Your task to perform on an android device: Open Youtube and go to the subscriptions tab Image 0: 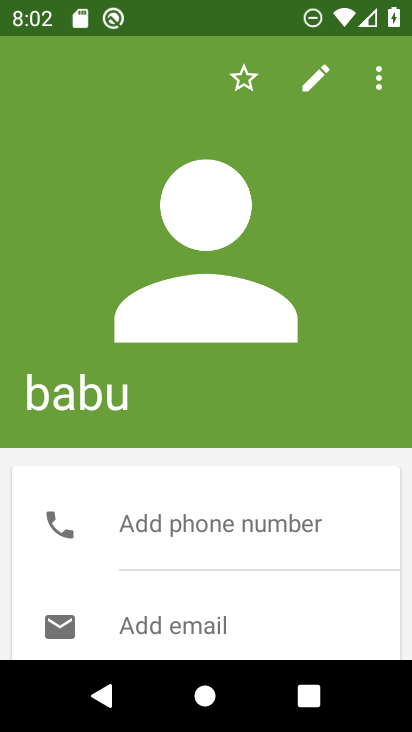
Step 0: press home button
Your task to perform on an android device: Open Youtube and go to the subscriptions tab Image 1: 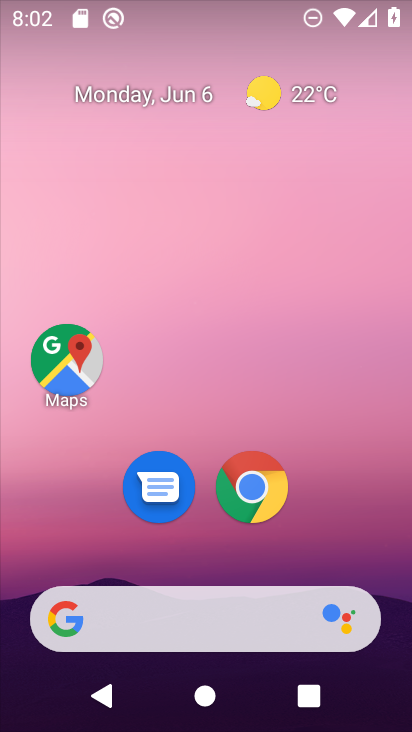
Step 1: drag from (395, 633) to (301, 86)
Your task to perform on an android device: Open Youtube and go to the subscriptions tab Image 2: 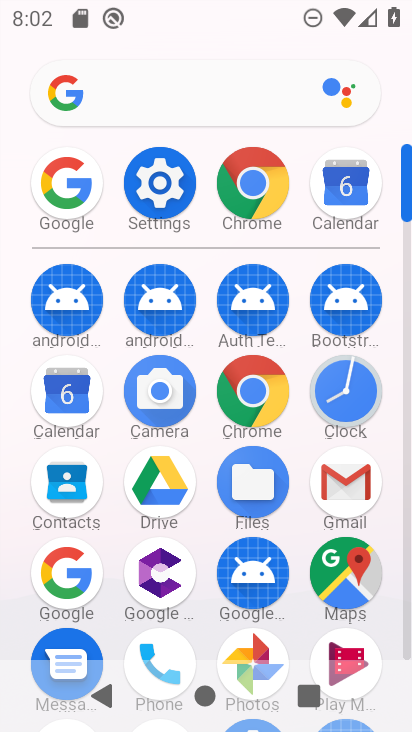
Step 2: drag from (303, 624) to (313, 182)
Your task to perform on an android device: Open Youtube and go to the subscriptions tab Image 3: 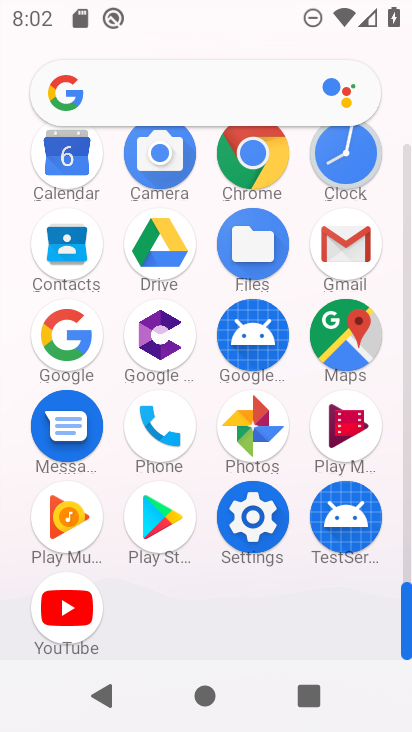
Step 3: click (61, 618)
Your task to perform on an android device: Open Youtube and go to the subscriptions tab Image 4: 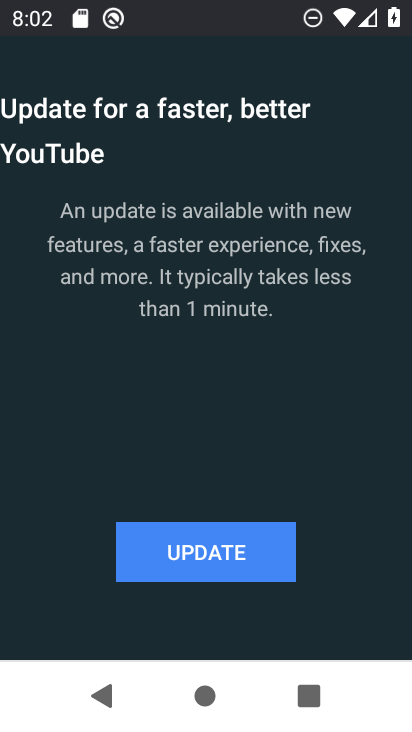
Step 4: click (237, 541)
Your task to perform on an android device: Open Youtube and go to the subscriptions tab Image 5: 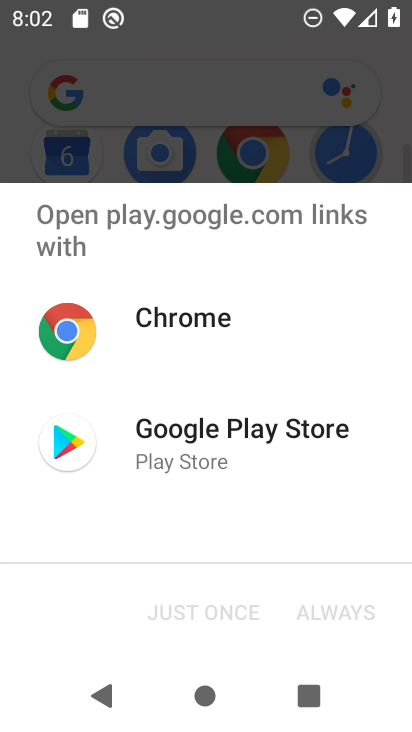
Step 5: click (171, 420)
Your task to perform on an android device: Open Youtube and go to the subscriptions tab Image 6: 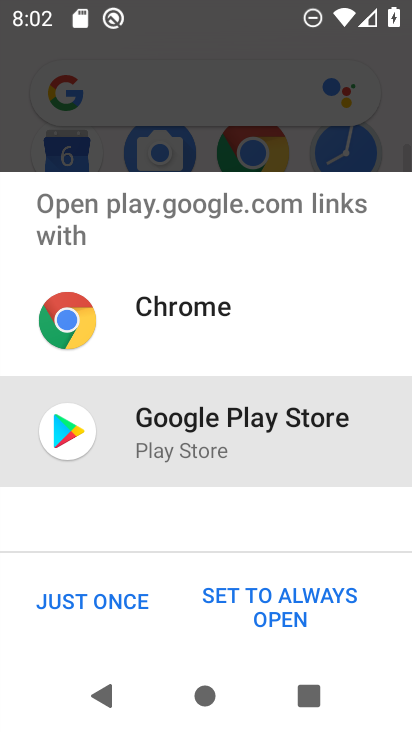
Step 6: click (66, 597)
Your task to perform on an android device: Open Youtube and go to the subscriptions tab Image 7: 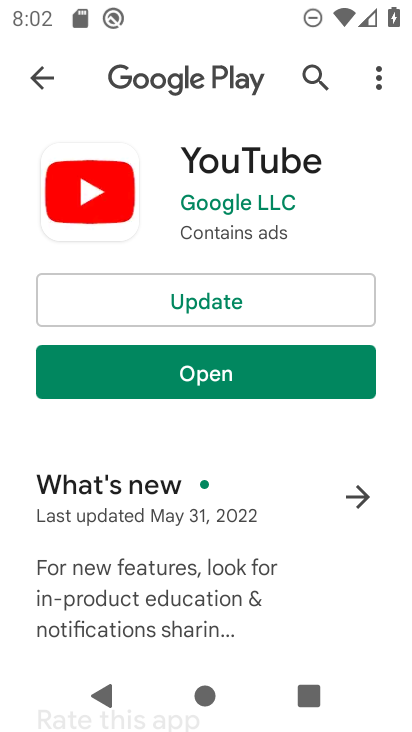
Step 7: click (197, 289)
Your task to perform on an android device: Open Youtube and go to the subscriptions tab Image 8: 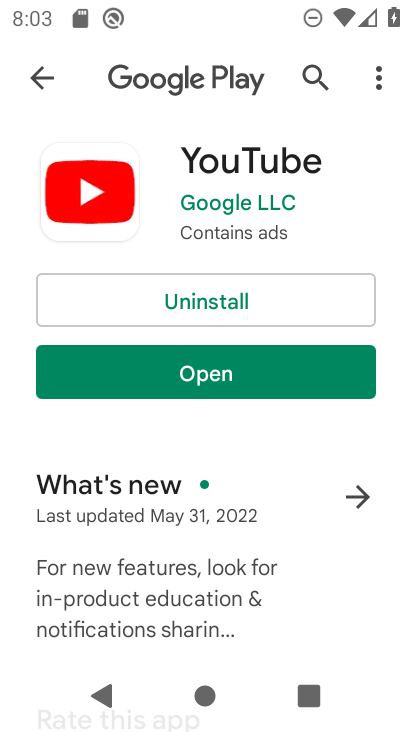
Step 8: click (174, 382)
Your task to perform on an android device: Open Youtube and go to the subscriptions tab Image 9: 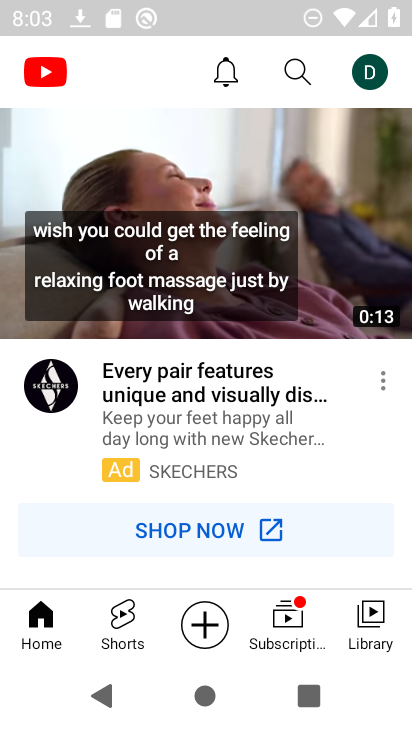
Step 9: click (298, 603)
Your task to perform on an android device: Open Youtube and go to the subscriptions tab Image 10: 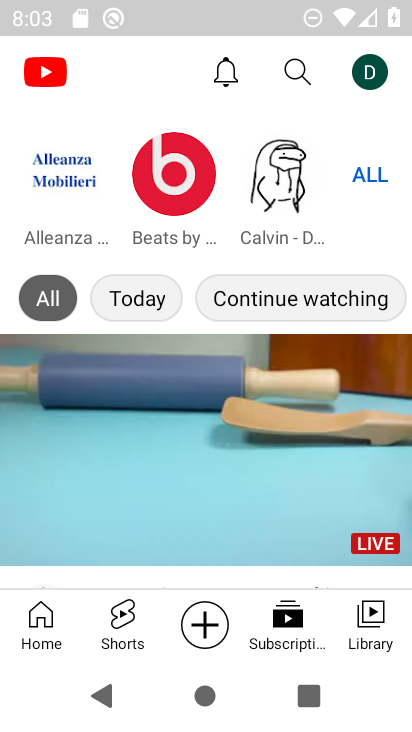
Step 10: task complete